Your task to perform on an android device: change the clock display to digital Image 0: 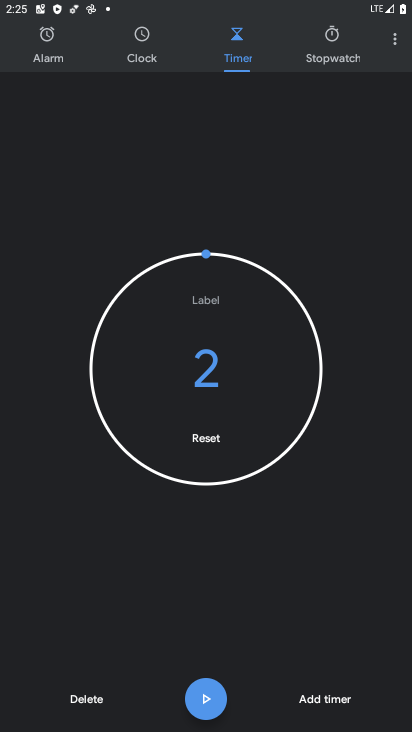
Step 0: press home button
Your task to perform on an android device: change the clock display to digital Image 1: 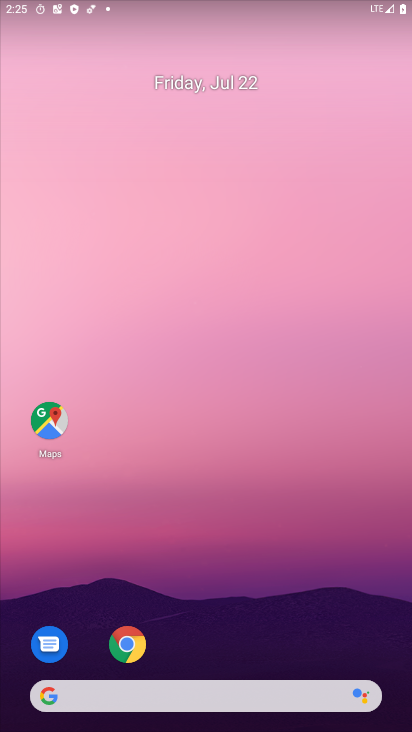
Step 1: drag from (196, 649) to (244, 110)
Your task to perform on an android device: change the clock display to digital Image 2: 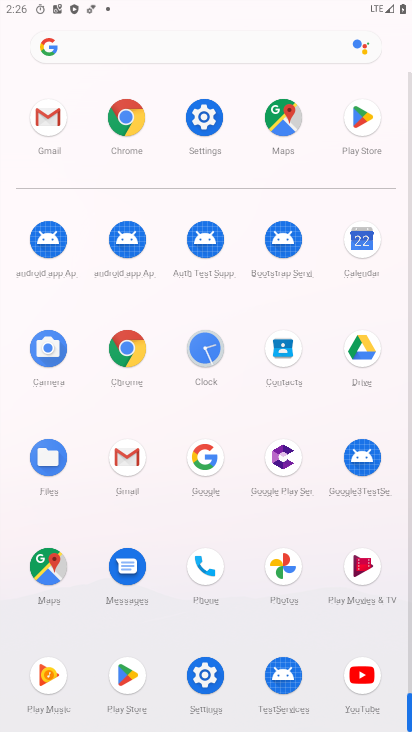
Step 2: click (199, 368)
Your task to perform on an android device: change the clock display to digital Image 3: 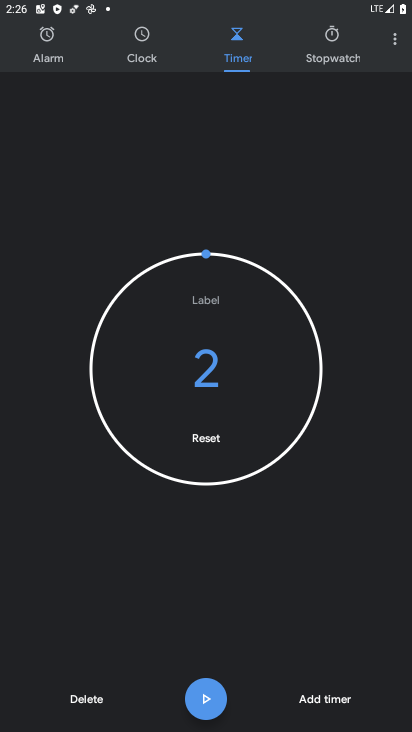
Step 3: click (396, 47)
Your task to perform on an android device: change the clock display to digital Image 4: 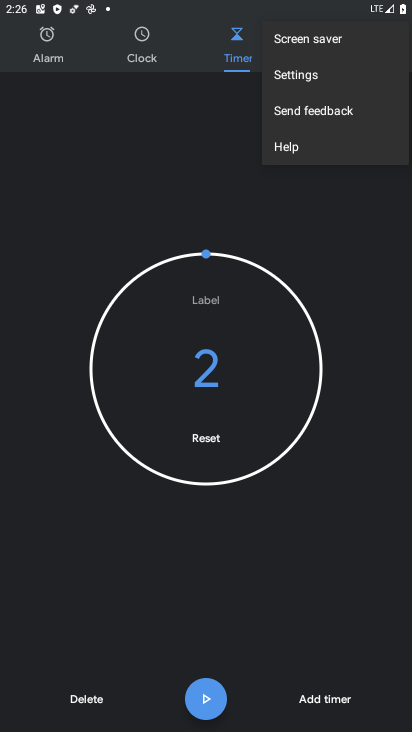
Step 4: click (313, 76)
Your task to perform on an android device: change the clock display to digital Image 5: 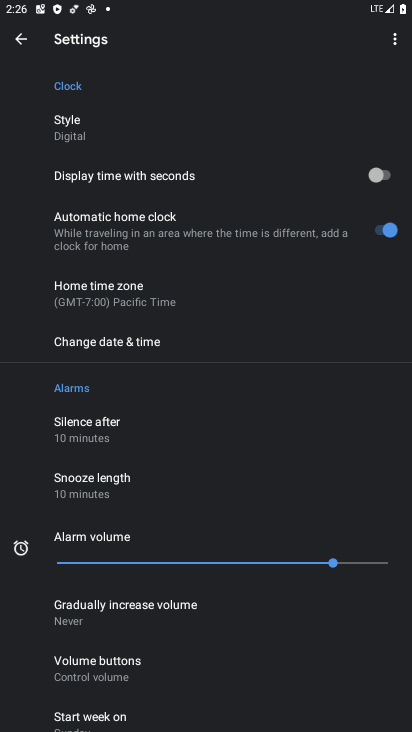
Step 5: click (85, 127)
Your task to perform on an android device: change the clock display to digital Image 6: 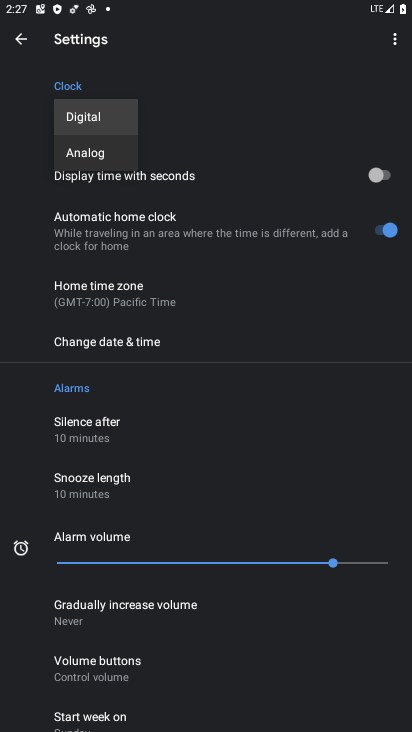
Step 6: click (101, 157)
Your task to perform on an android device: change the clock display to digital Image 7: 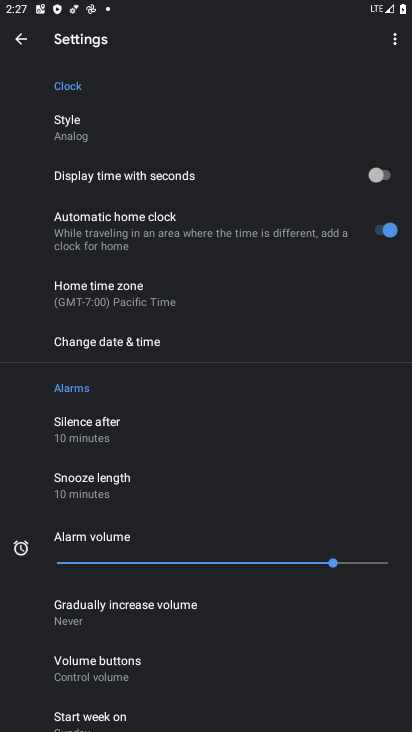
Step 7: task complete